Your task to perform on an android device: open a new tab in the chrome app Image 0: 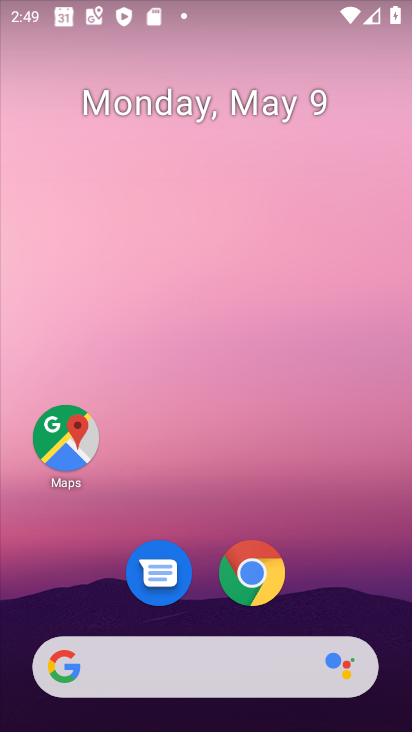
Step 0: drag from (258, 645) to (255, 216)
Your task to perform on an android device: open a new tab in the chrome app Image 1: 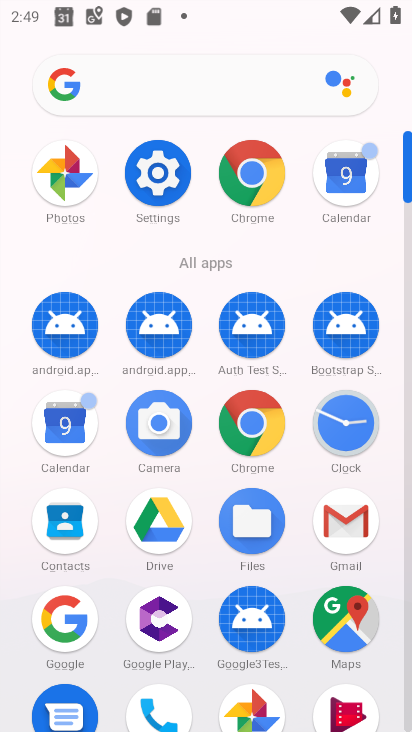
Step 1: click (249, 183)
Your task to perform on an android device: open a new tab in the chrome app Image 2: 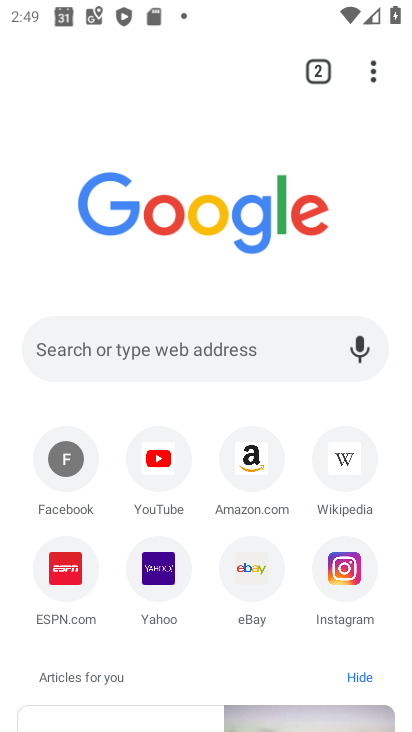
Step 2: click (370, 69)
Your task to perform on an android device: open a new tab in the chrome app Image 3: 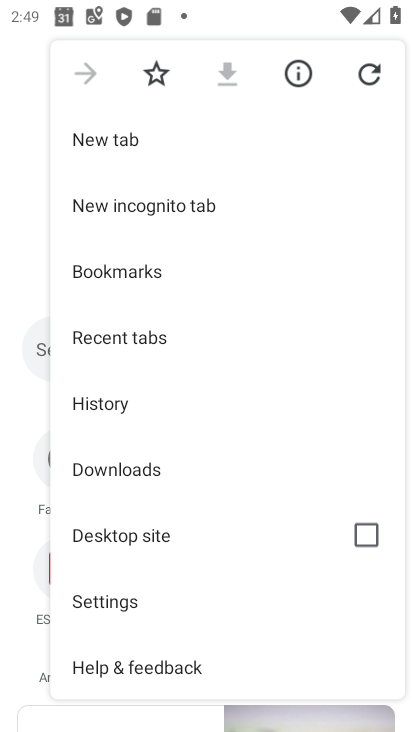
Step 3: click (143, 138)
Your task to perform on an android device: open a new tab in the chrome app Image 4: 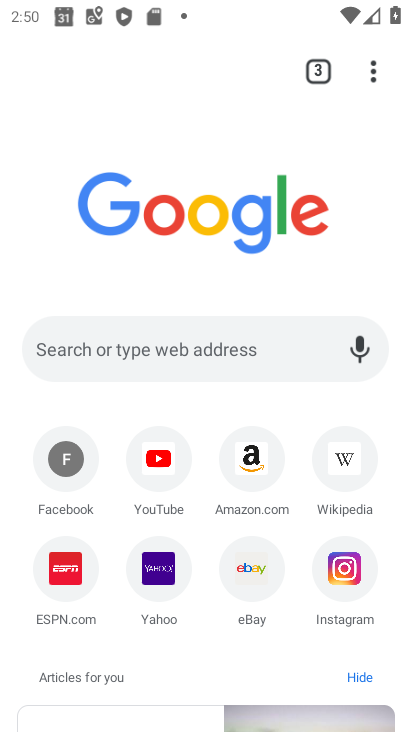
Step 4: task complete